Your task to perform on an android device: delete location history Image 0: 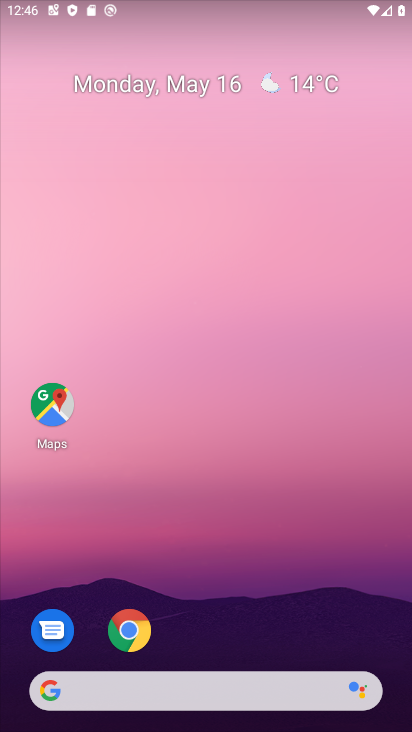
Step 0: drag from (264, 648) to (273, 174)
Your task to perform on an android device: delete location history Image 1: 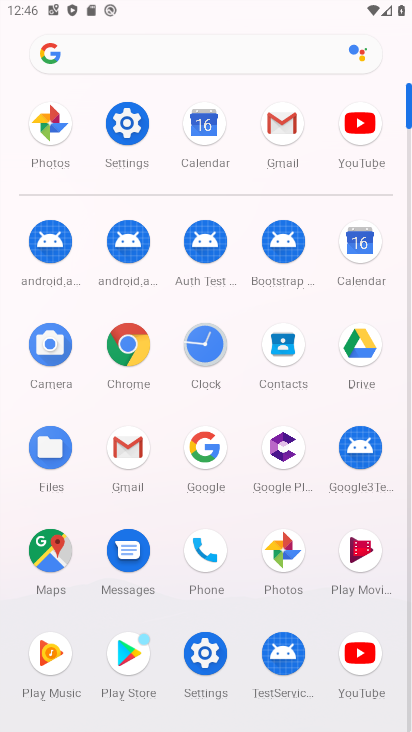
Step 1: click (207, 653)
Your task to perform on an android device: delete location history Image 2: 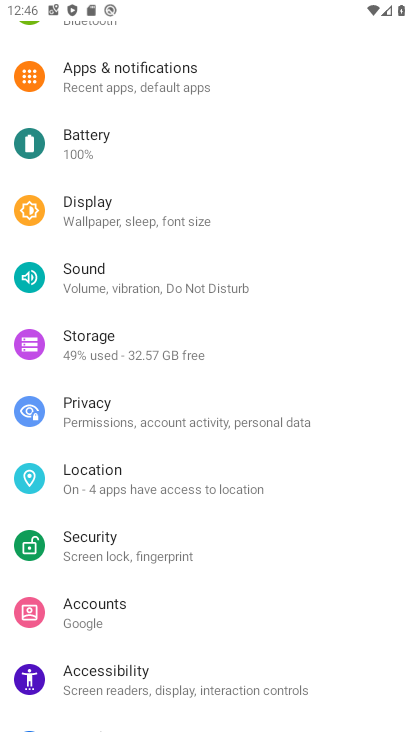
Step 2: drag from (274, 627) to (249, 356)
Your task to perform on an android device: delete location history Image 3: 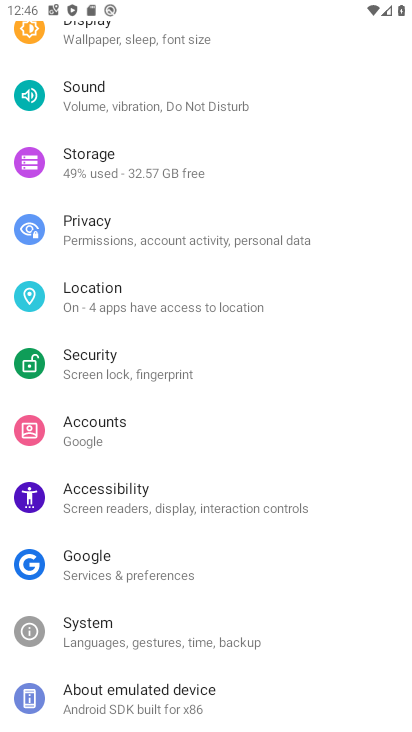
Step 3: click (127, 293)
Your task to perform on an android device: delete location history Image 4: 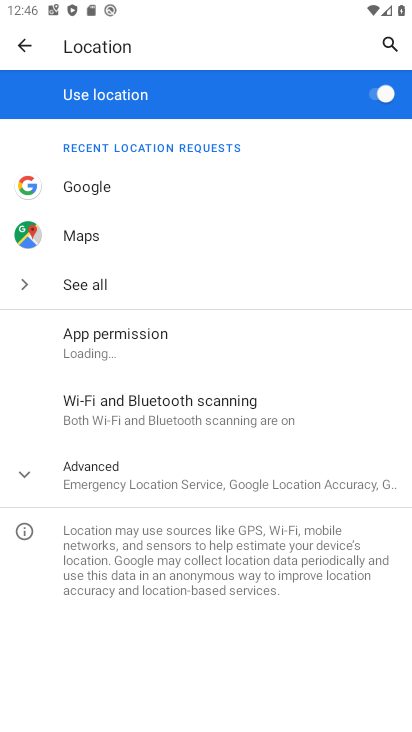
Step 4: click (243, 493)
Your task to perform on an android device: delete location history Image 5: 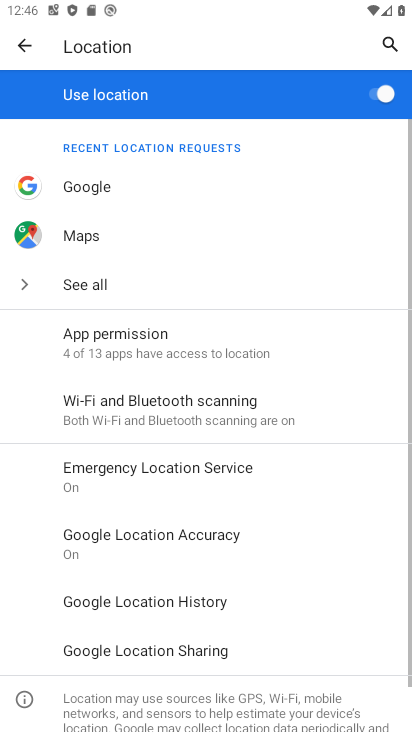
Step 5: click (192, 615)
Your task to perform on an android device: delete location history Image 6: 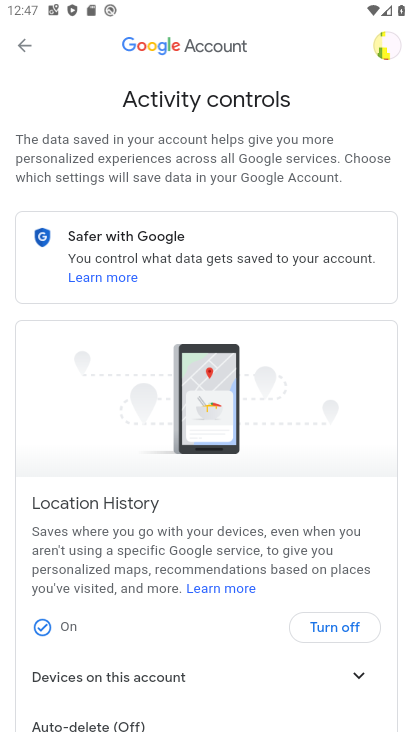
Step 6: drag from (209, 650) to (215, 177)
Your task to perform on an android device: delete location history Image 7: 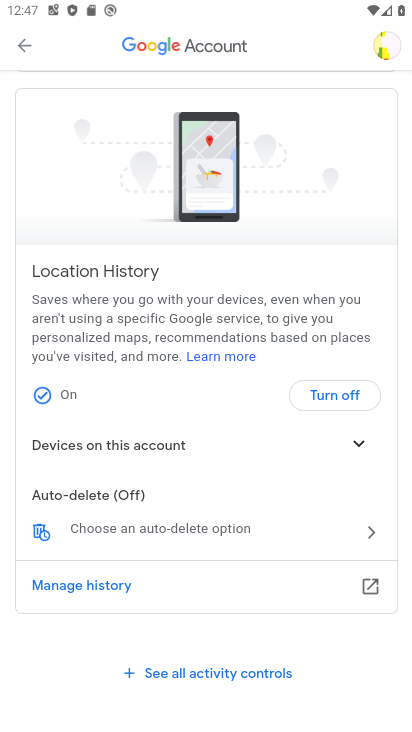
Step 7: click (94, 578)
Your task to perform on an android device: delete location history Image 8: 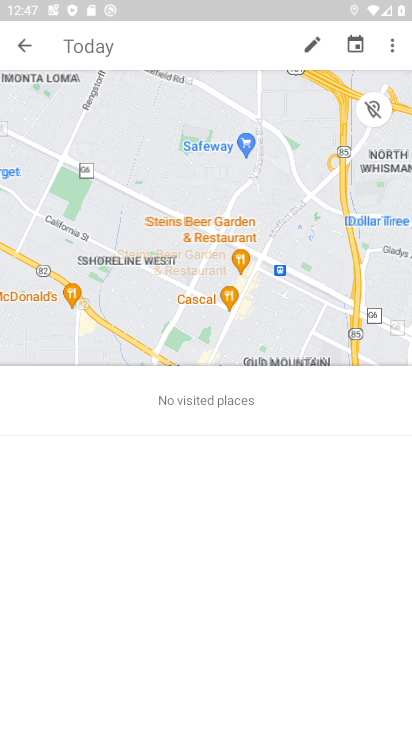
Step 8: click (395, 45)
Your task to perform on an android device: delete location history Image 9: 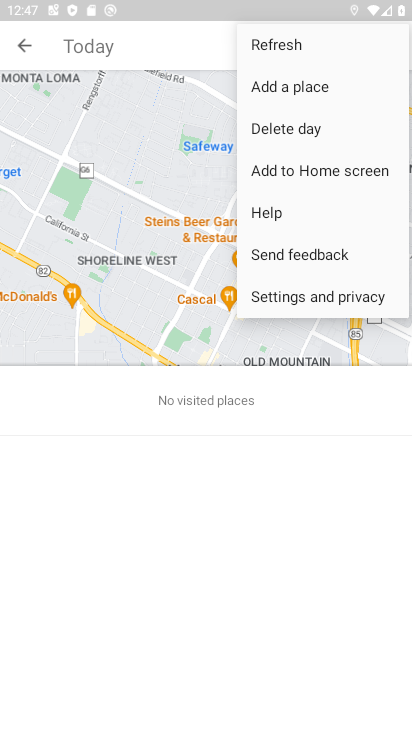
Step 9: click (304, 127)
Your task to perform on an android device: delete location history Image 10: 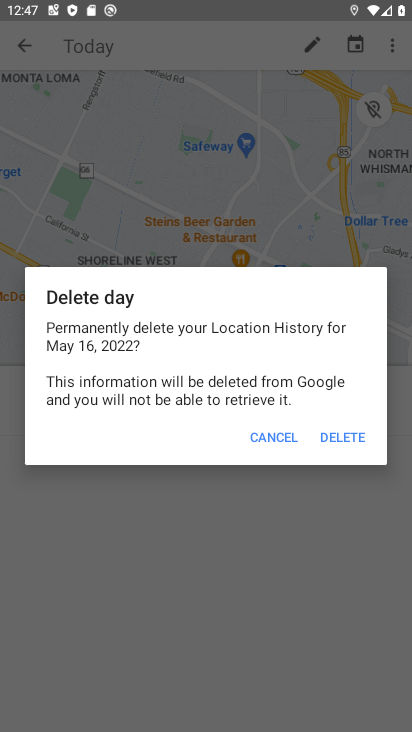
Step 10: click (320, 435)
Your task to perform on an android device: delete location history Image 11: 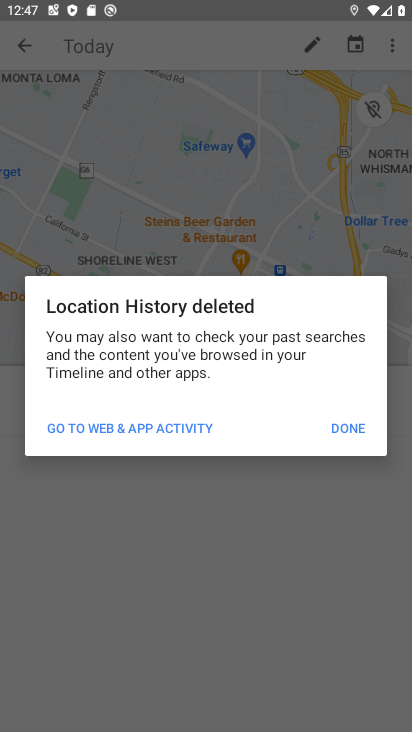
Step 11: click (360, 424)
Your task to perform on an android device: delete location history Image 12: 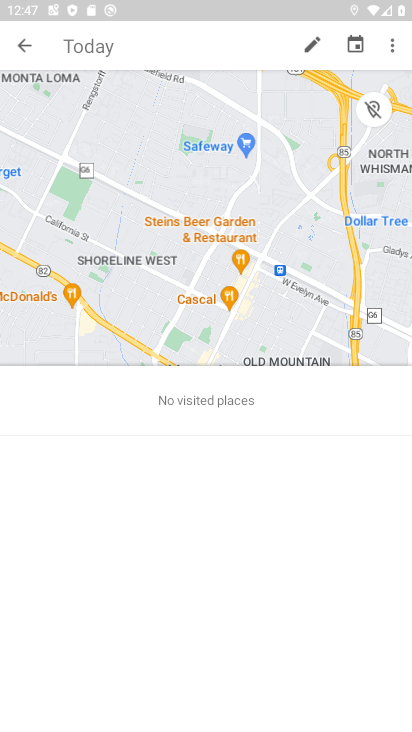
Step 12: task complete